Your task to perform on an android device: Go to ESPN.com Image 0: 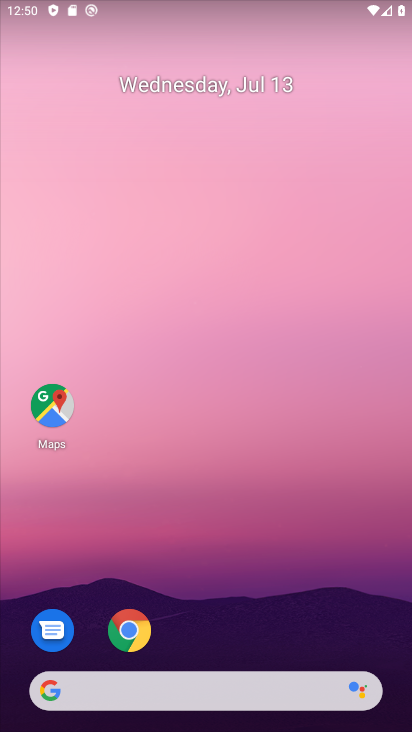
Step 0: drag from (237, 627) to (373, 30)
Your task to perform on an android device: Go to ESPN.com Image 1: 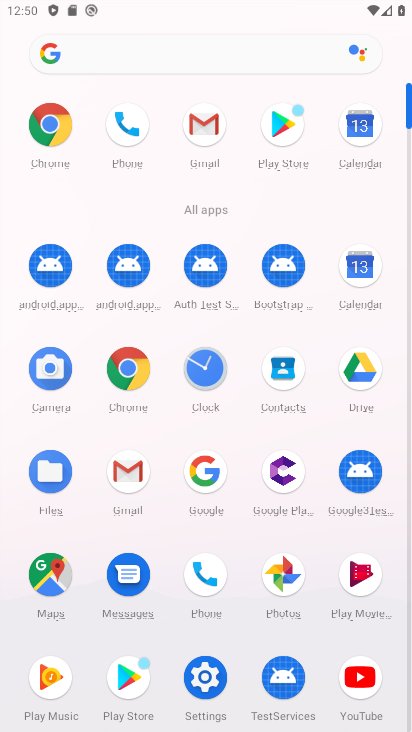
Step 1: click (56, 136)
Your task to perform on an android device: Go to ESPN.com Image 2: 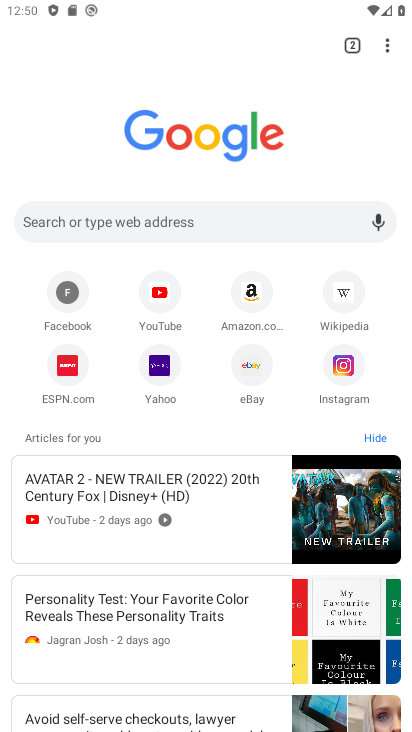
Step 2: click (70, 382)
Your task to perform on an android device: Go to ESPN.com Image 3: 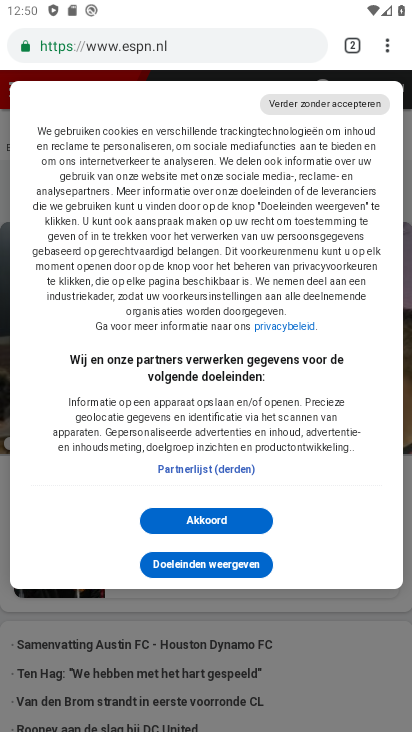
Step 3: task complete